Your task to perform on an android device: turn off smart reply in the gmail app Image 0: 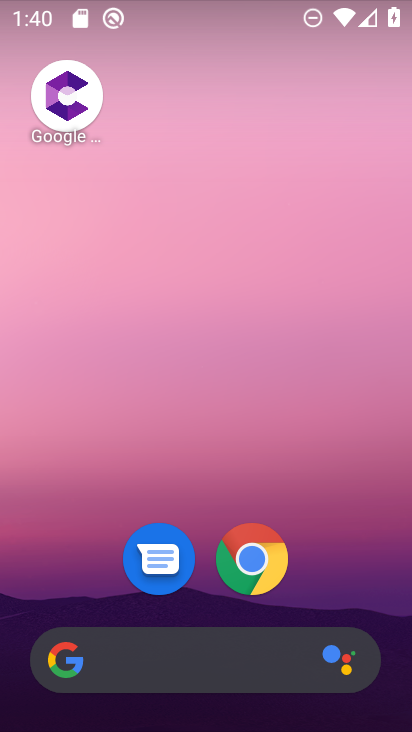
Step 0: drag from (335, 563) to (237, 49)
Your task to perform on an android device: turn off smart reply in the gmail app Image 1: 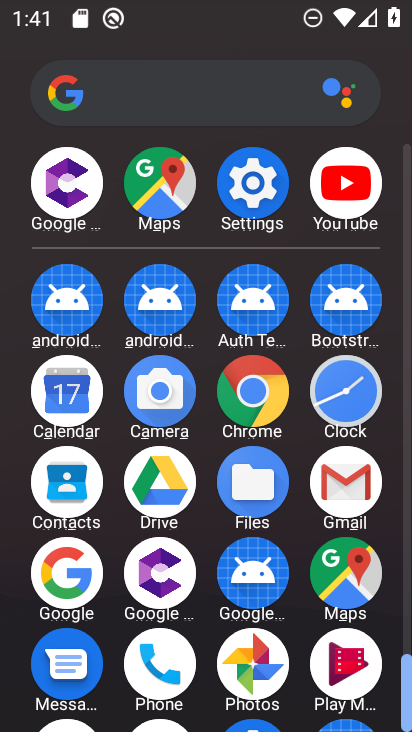
Step 1: click (342, 483)
Your task to perform on an android device: turn off smart reply in the gmail app Image 2: 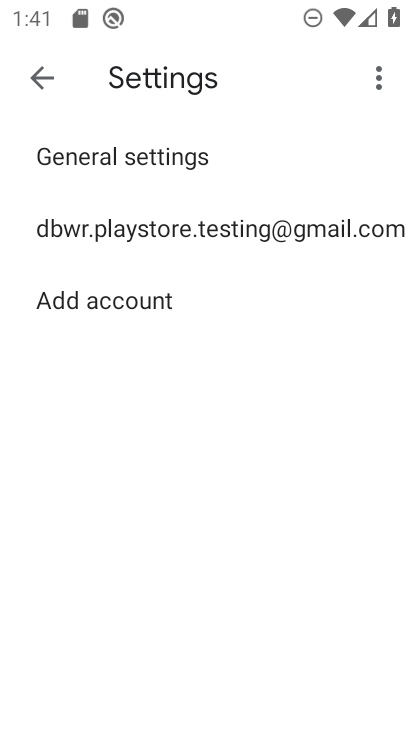
Step 2: click (213, 227)
Your task to perform on an android device: turn off smart reply in the gmail app Image 3: 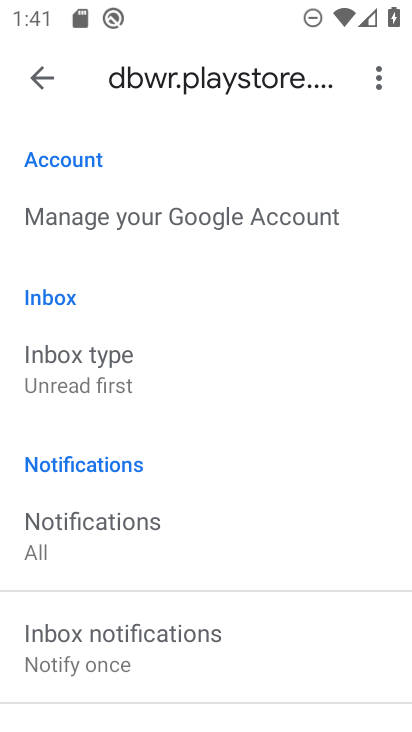
Step 3: drag from (169, 466) to (186, 370)
Your task to perform on an android device: turn off smart reply in the gmail app Image 4: 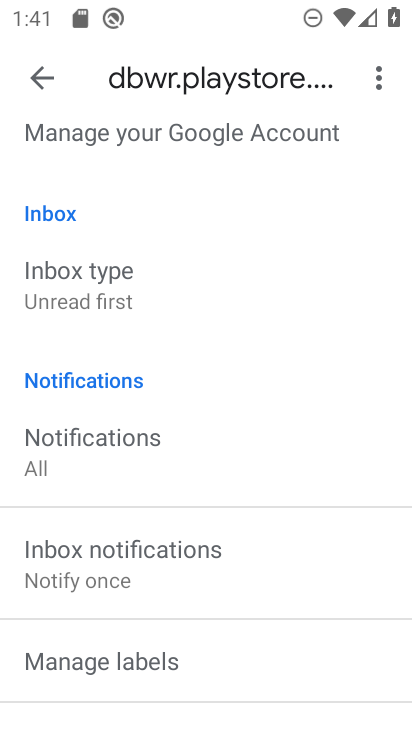
Step 4: drag from (164, 505) to (221, 395)
Your task to perform on an android device: turn off smart reply in the gmail app Image 5: 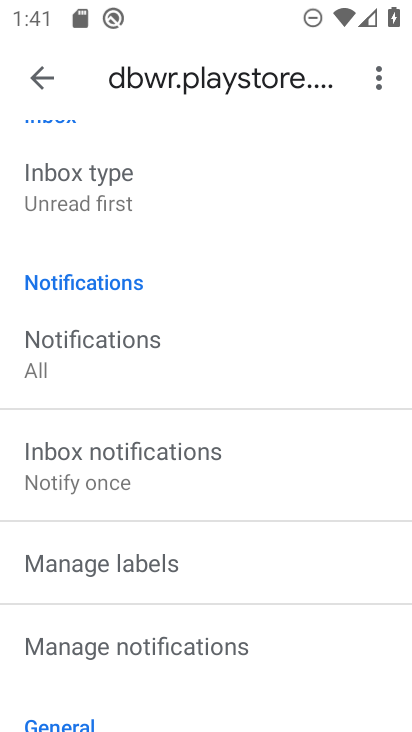
Step 5: drag from (123, 544) to (164, 437)
Your task to perform on an android device: turn off smart reply in the gmail app Image 6: 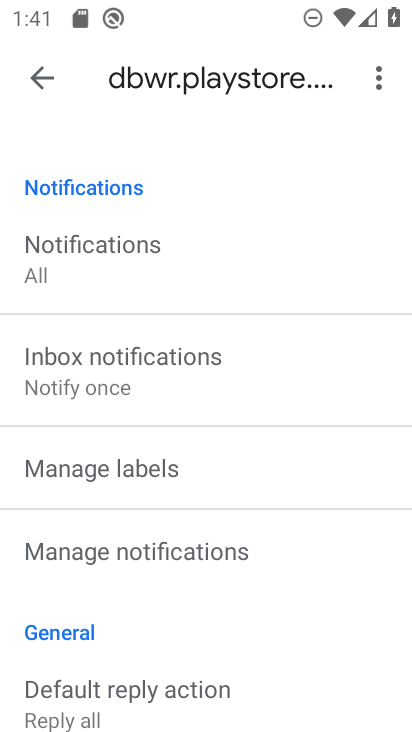
Step 6: drag from (137, 603) to (193, 481)
Your task to perform on an android device: turn off smart reply in the gmail app Image 7: 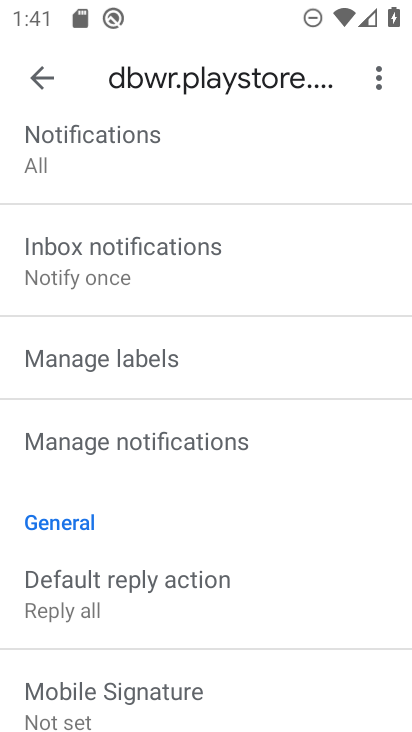
Step 7: drag from (147, 619) to (189, 516)
Your task to perform on an android device: turn off smart reply in the gmail app Image 8: 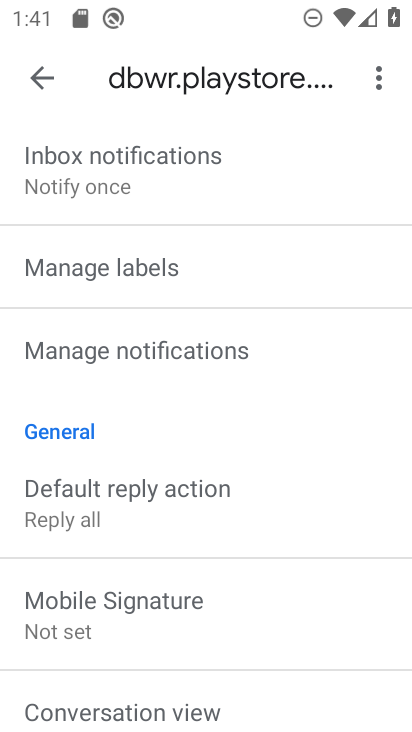
Step 8: drag from (146, 630) to (200, 507)
Your task to perform on an android device: turn off smart reply in the gmail app Image 9: 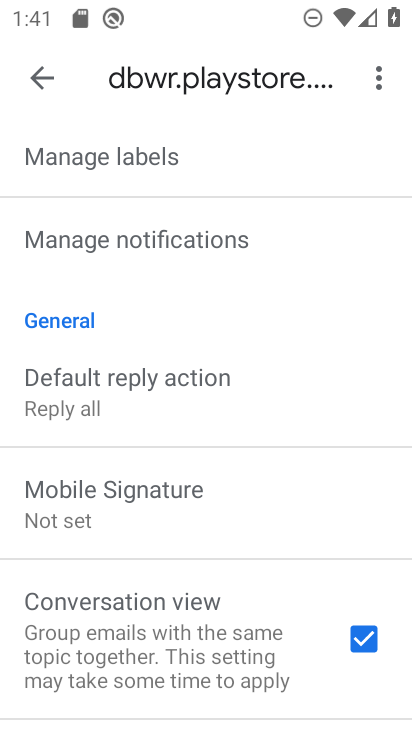
Step 9: drag from (156, 648) to (233, 529)
Your task to perform on an android device: turn off smart reply in the gmail app Image 10: 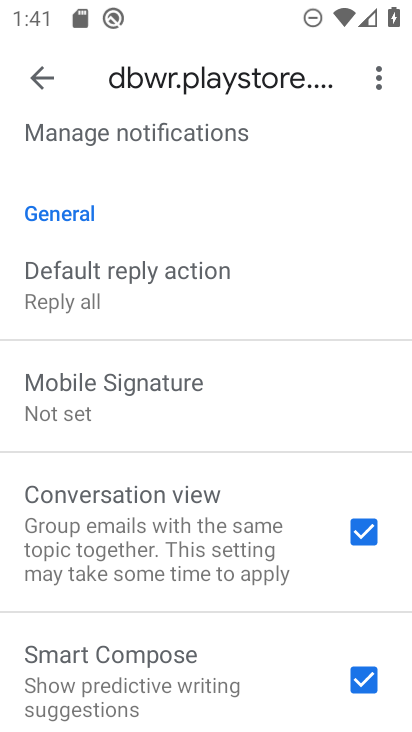
Step 10: drag from (131, 633) to (200, 502)
Your task to perform on an android device: turn off smart reply in the gmail app Image 11: 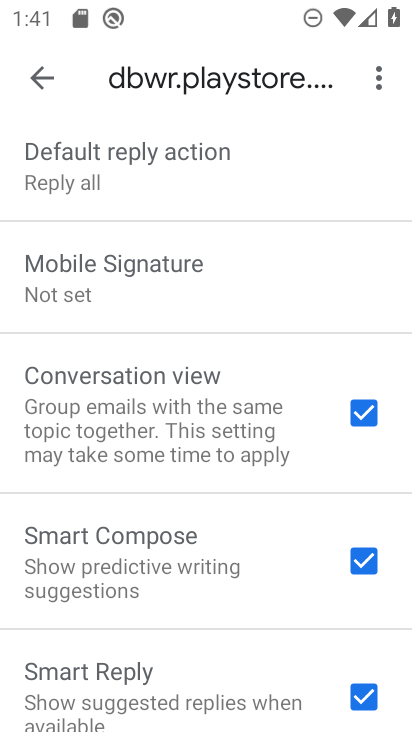
Step 11: drag from (124, 642) to (235, 435)
Your task to perform on an android device: turn off smart reply in the gmail app Image 12: 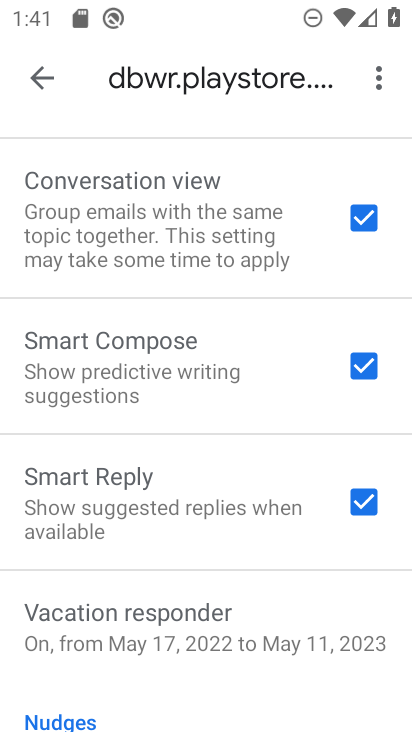
Step 12: click (362, 499)
Your task to perform on an android device: turn off smart reply in the gmail app Image 13: 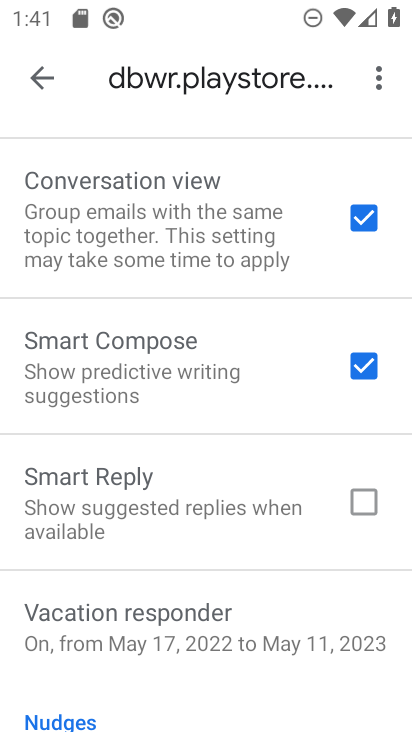
Step 13: task complete